Your task to perform on an android device: Go to Yahoo.com Image 0: 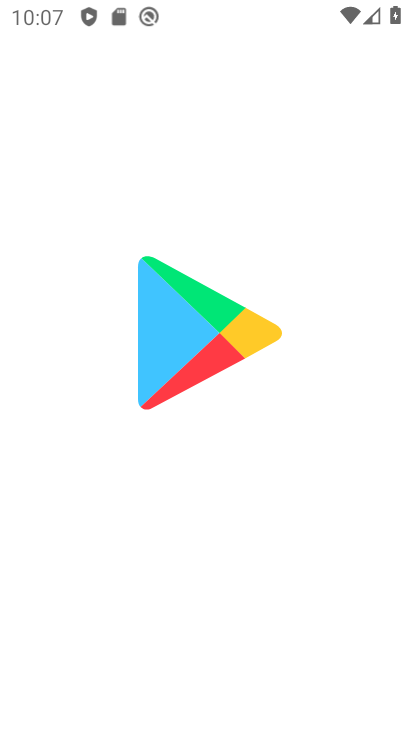
Step 0: click (215, 172)
Your task to perform on an android device: Go to Yahoo.com Image 1: 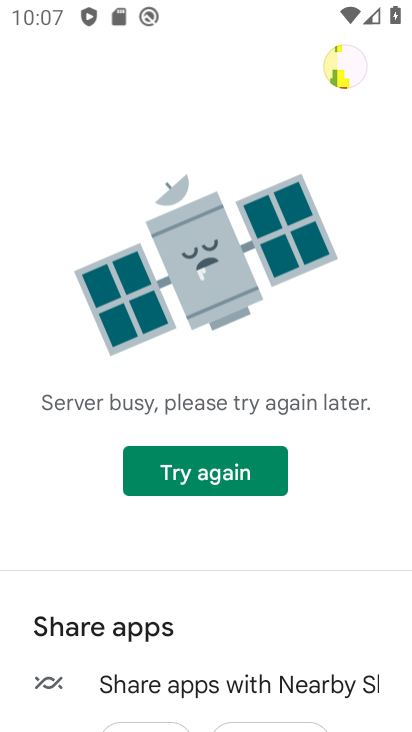
Step 1: press home button
Your task to perform on an android device: Go to Yahoo.com Image 2: 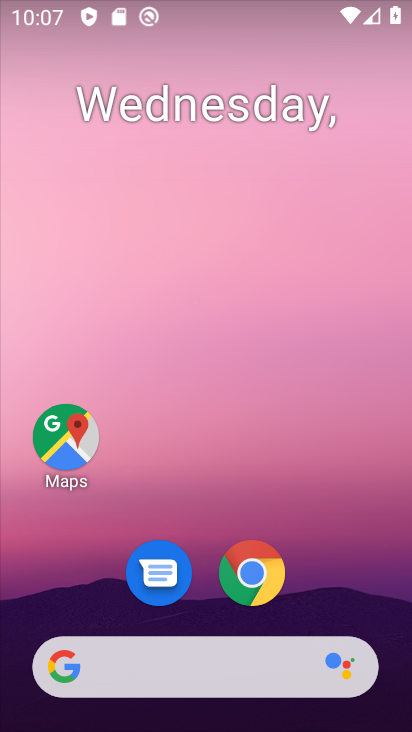
Step 2: click (238, 574)
Your task to perform on an android device: Go to Yahoo.com Image 3: 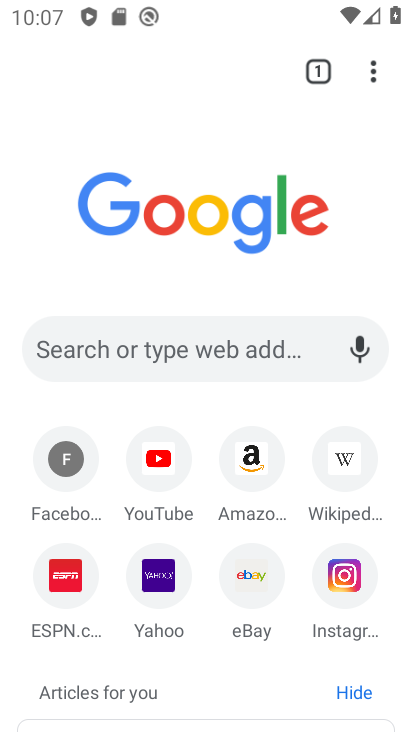
Step 3: click (157, 578)
Your task to perform on an android device: Go to Yahoo.com Image 4: 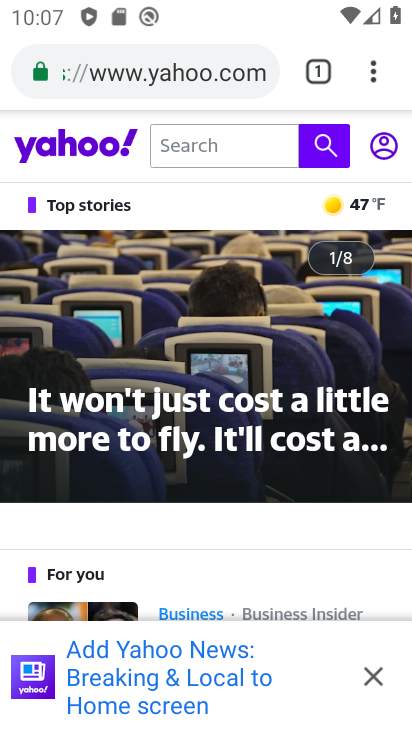
Step 4: task complete